Your task to perform on an android device: Find a nice sofa on eBay Image 0: 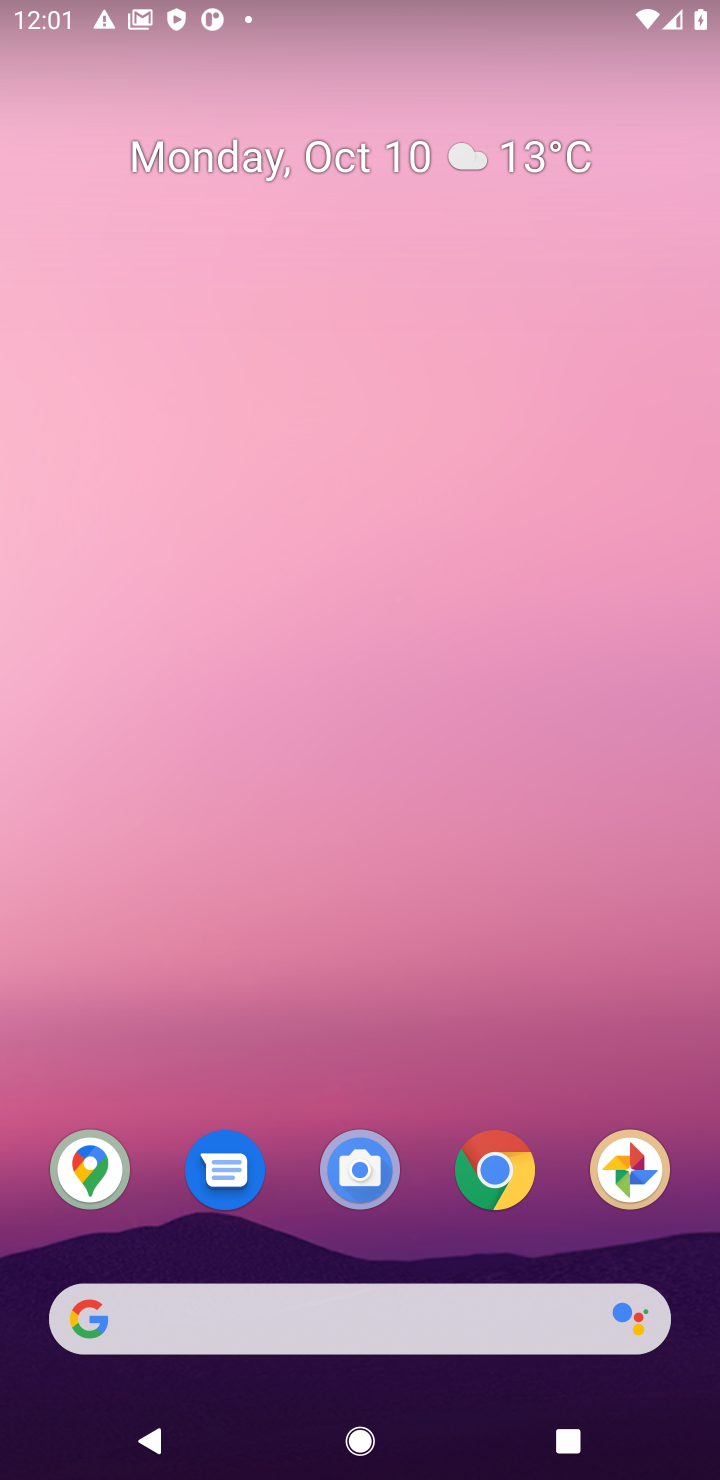
Step 0: click (499, 1175)
Your task to perform on an android device: Find a nice sofa on eBay Image 1: 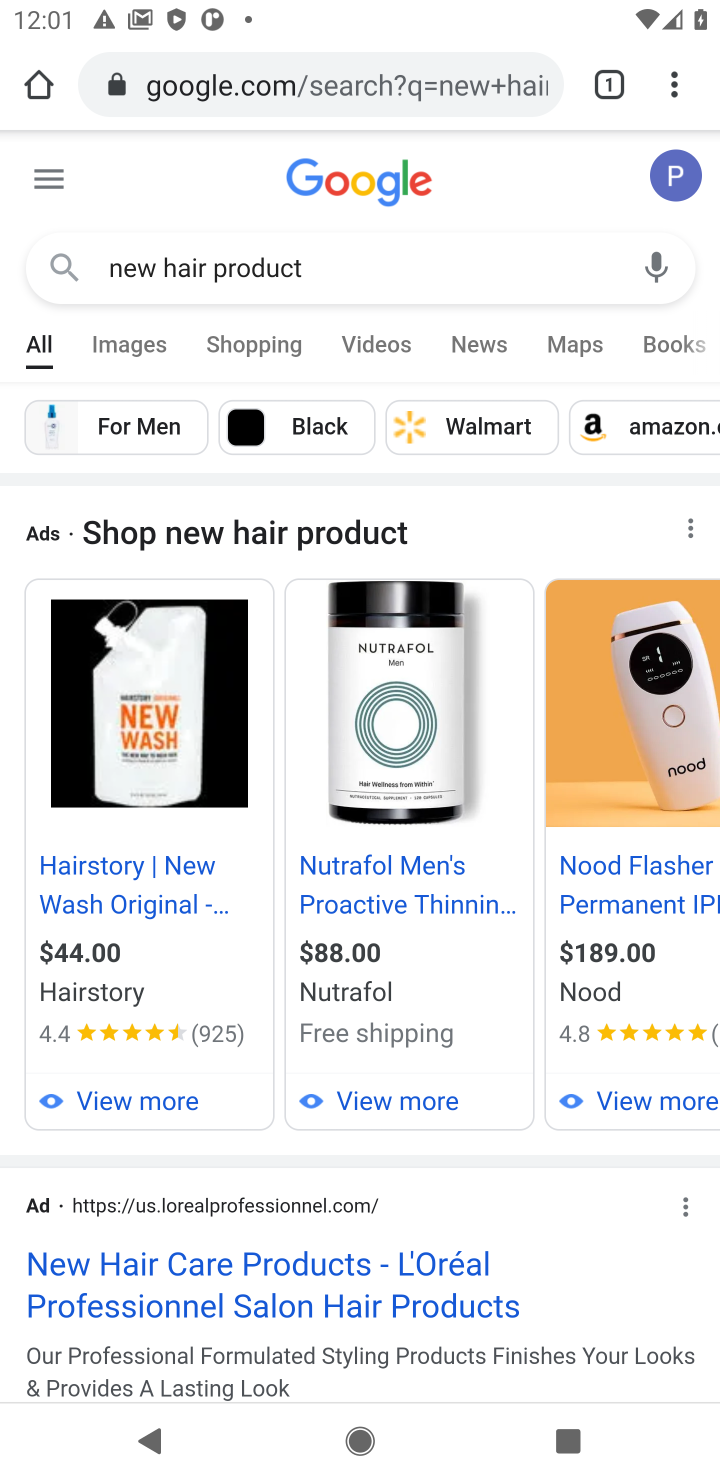
Step 1: click (440, 83)
Your task to perform on an android device: Find a nice sofa on eBay Image 2: 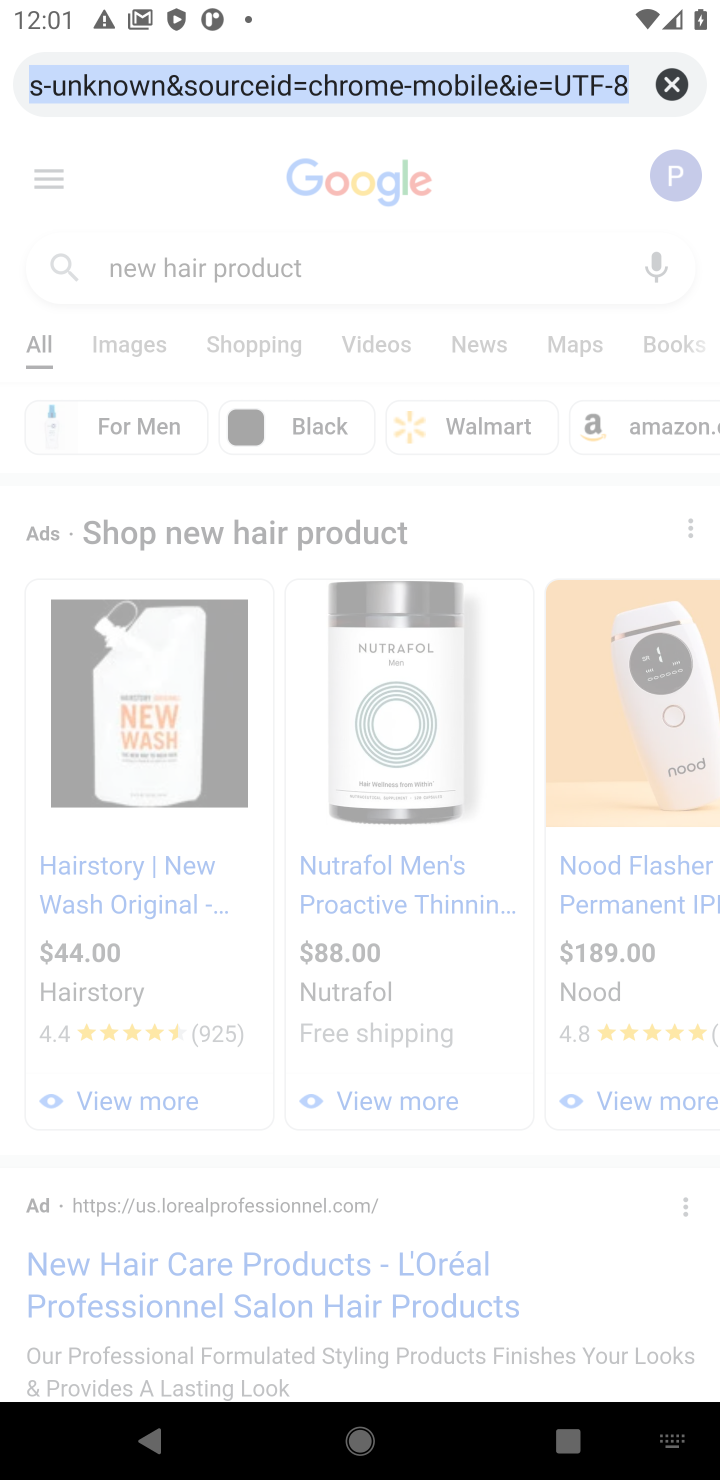
Step 2: click (664, 91)
Your task to perform on an android device: Find a nice sofa on eBay Image 3: 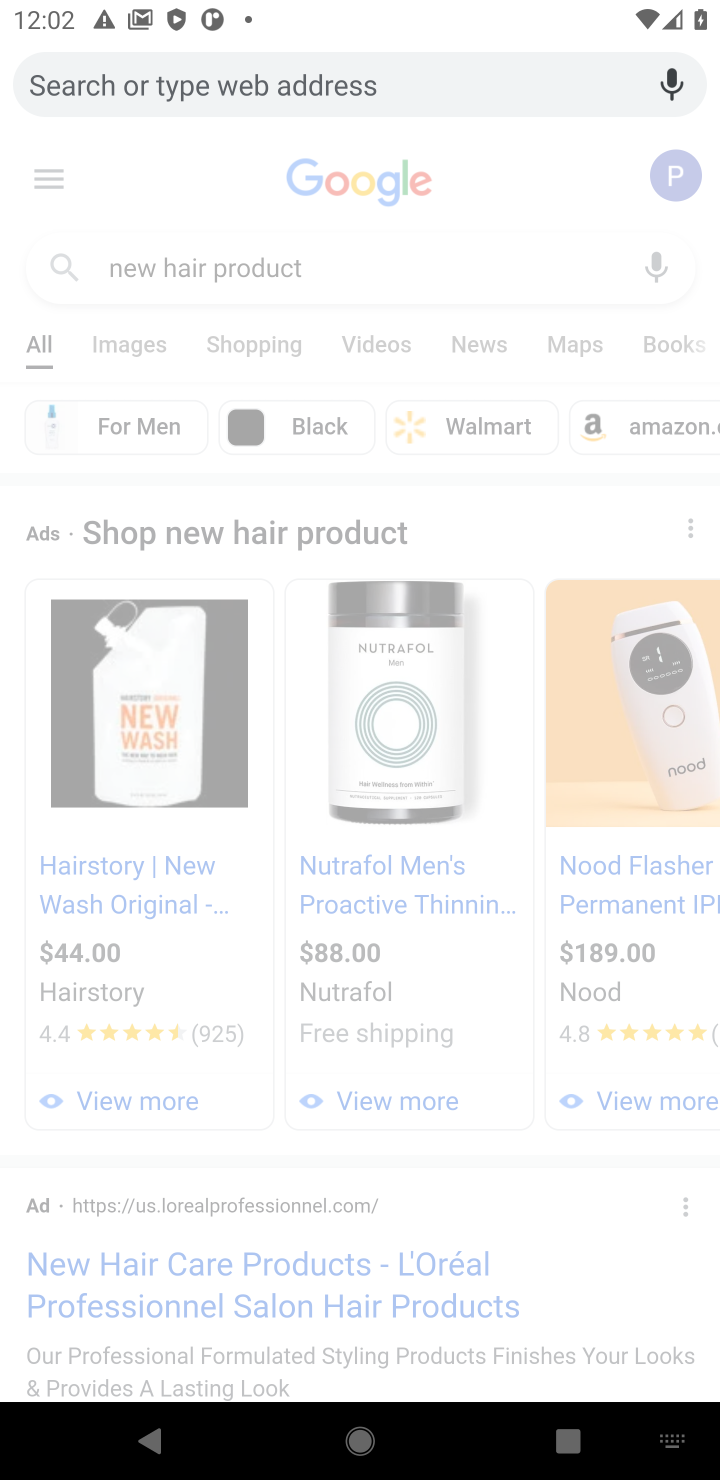
Step 3: type "eBay"
Your task to perform on an android device: Find a nice sofa on eBay Image 4: 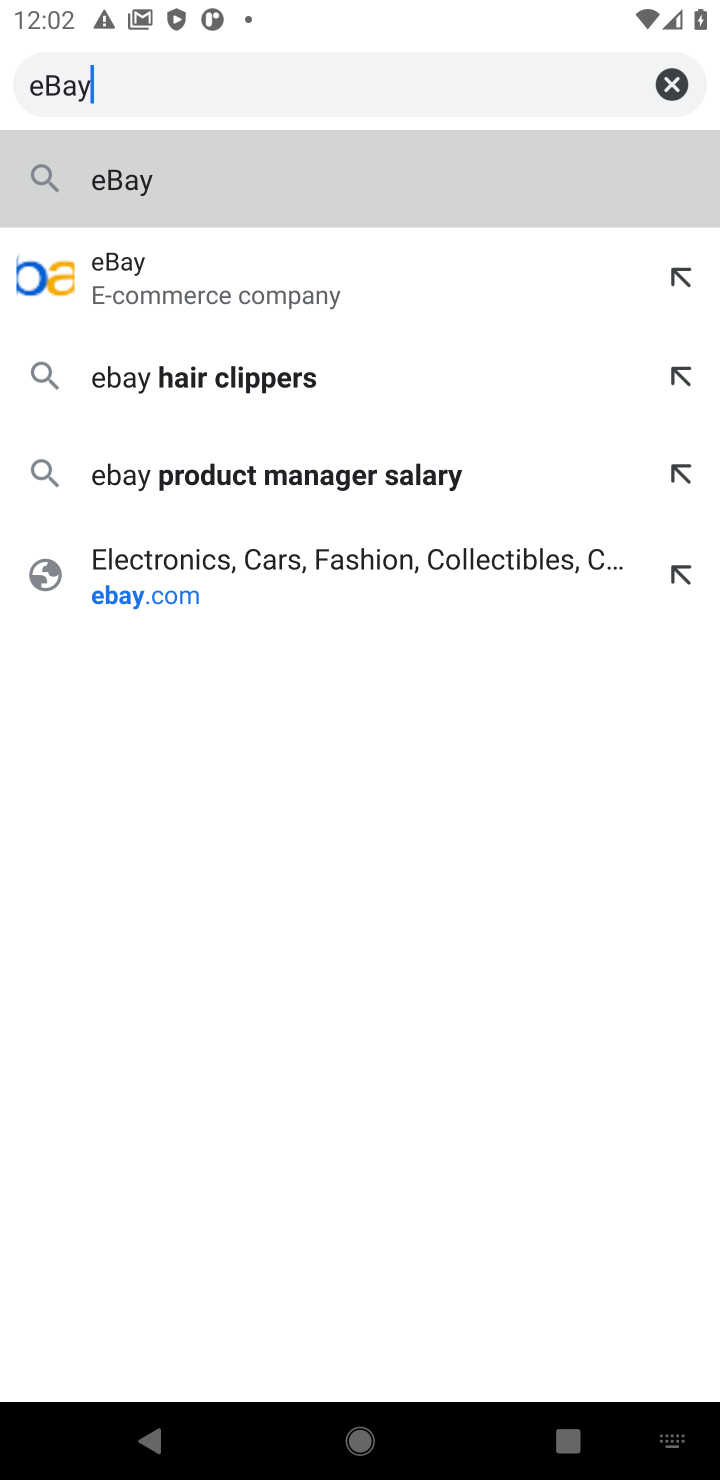
Step 4: click (180, 160)
Your task to perform on an android device: Find a nice sofa on eBay Image 5: 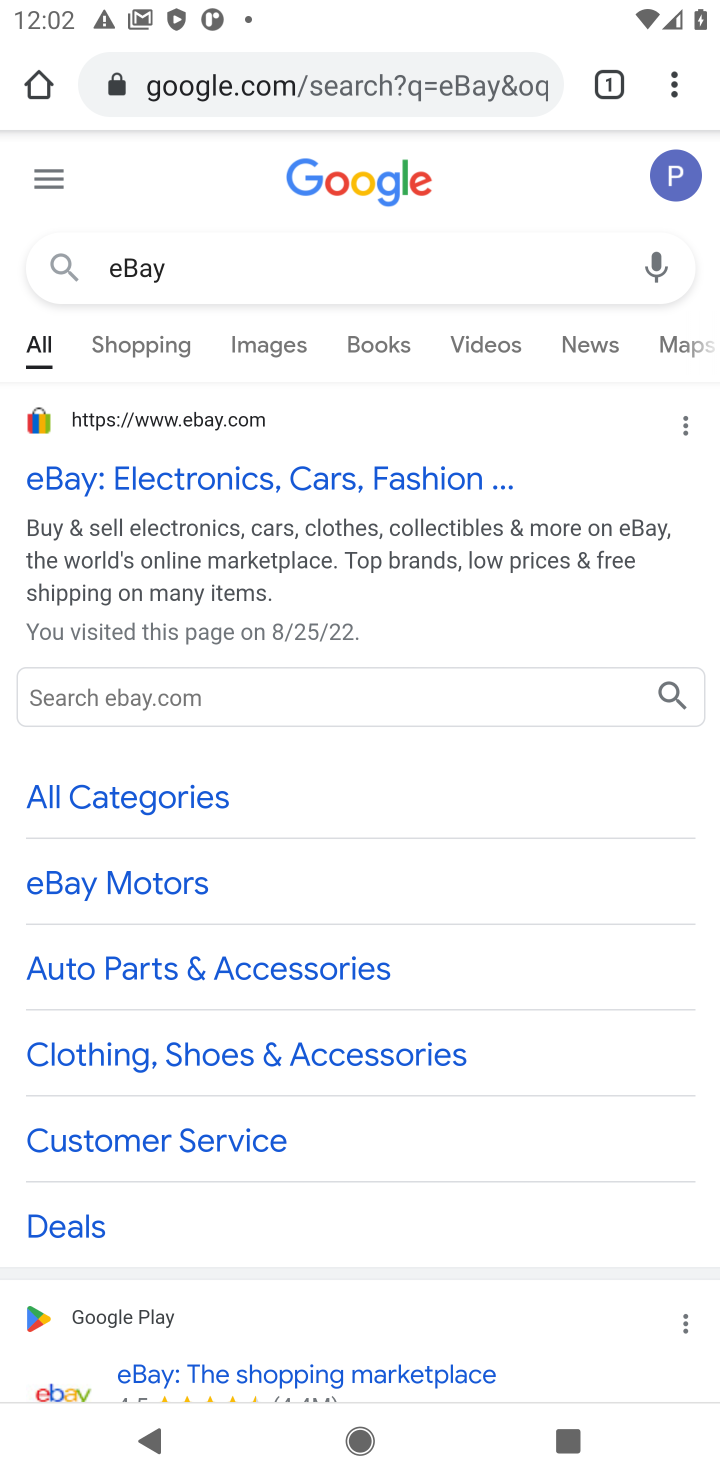
Step 5: click (186, 472)
Your task to perform on an android device: Find a nice sofa on eBay Image 6: 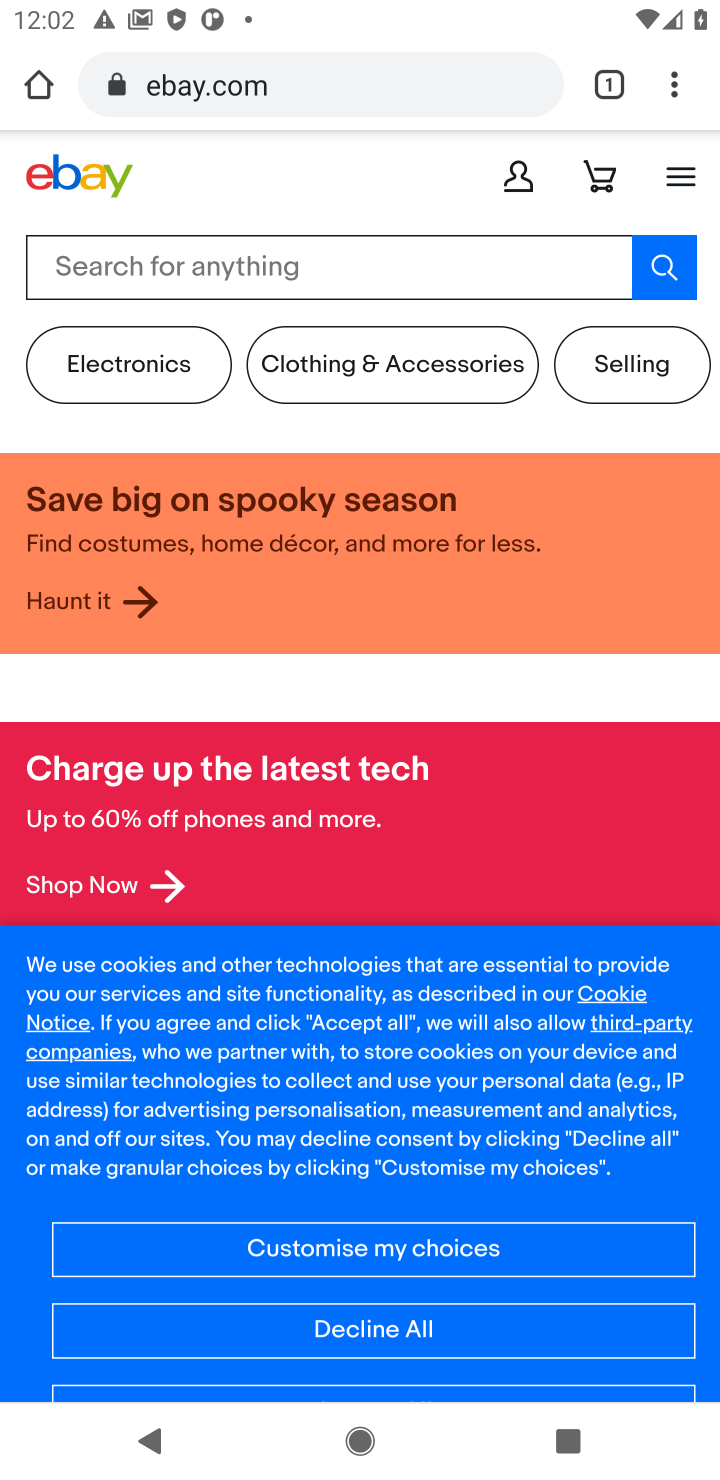
Step 6: click (333, 250)
Your task to perform on an android device: Find a nice sofa on eBay Image 7: 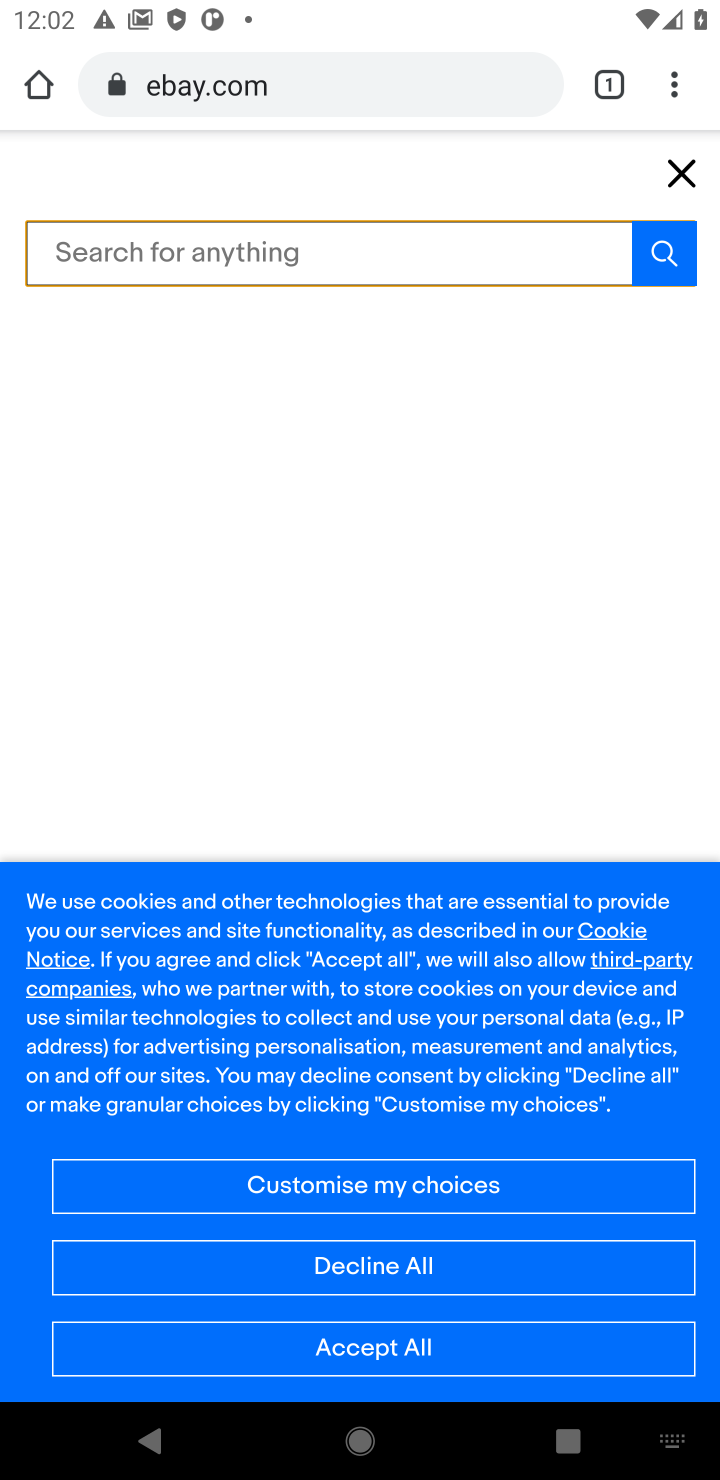
Step 7: type "nice sofa"
Your task to perform on an android device: Find a nice sofa on eBay Image 8: 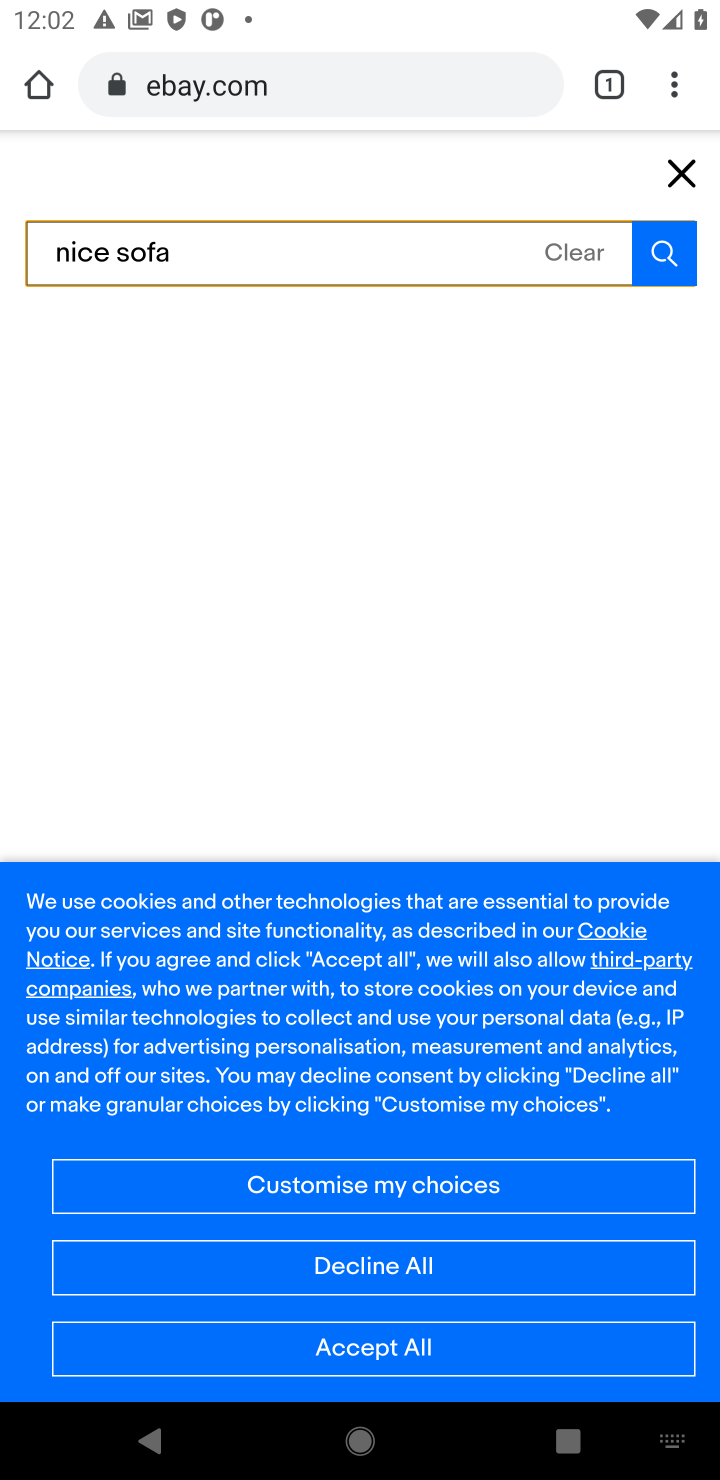
Step 8: click (654, 254)
Your task to perform on an android device: Find a nice sofa on eBay Image 9: 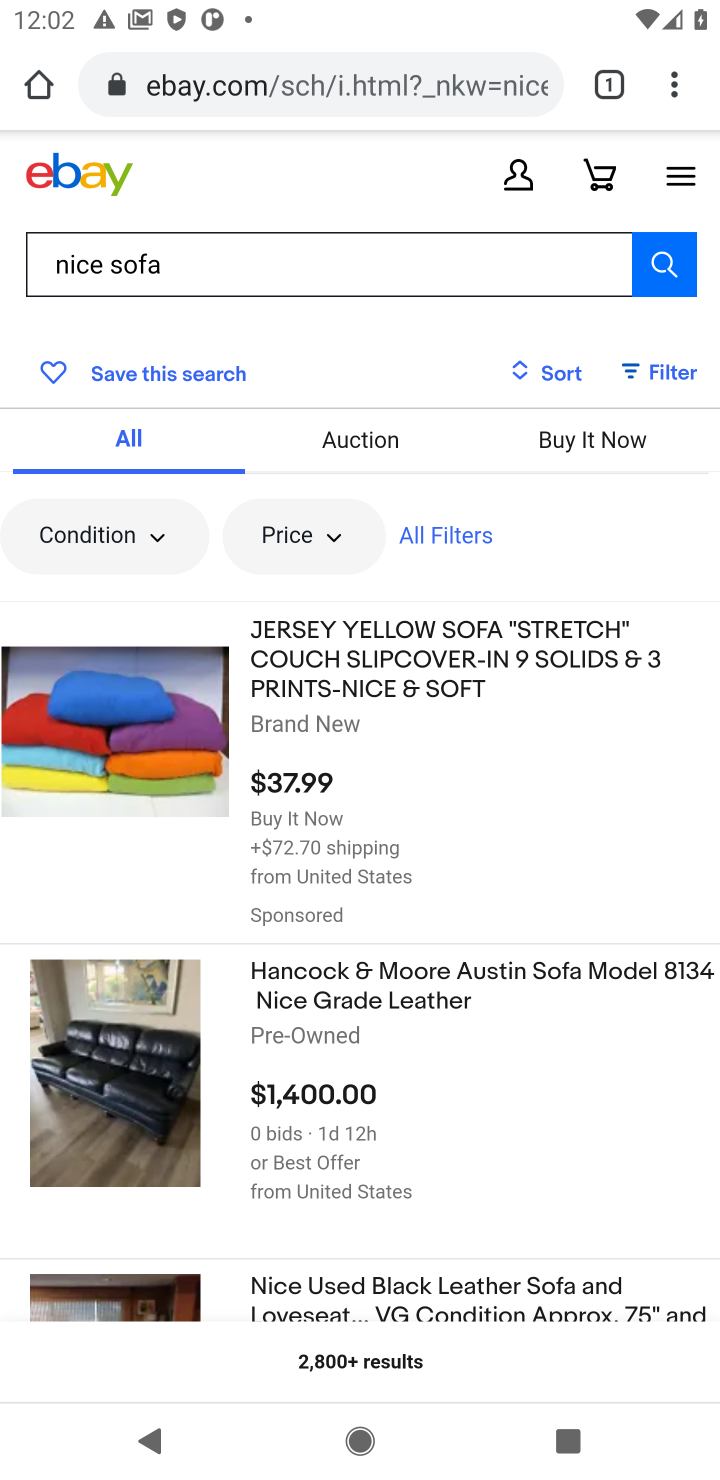
Step 9: task complete